Your task to perform on an android device: search for starred emails in the gmail app Image 0: 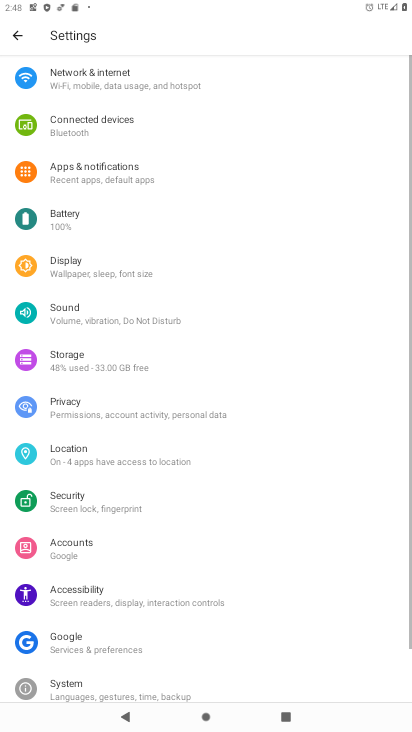
Step 0: press home button
Your task to perform on an android device: search for starred emails in the gmail app Image 1: 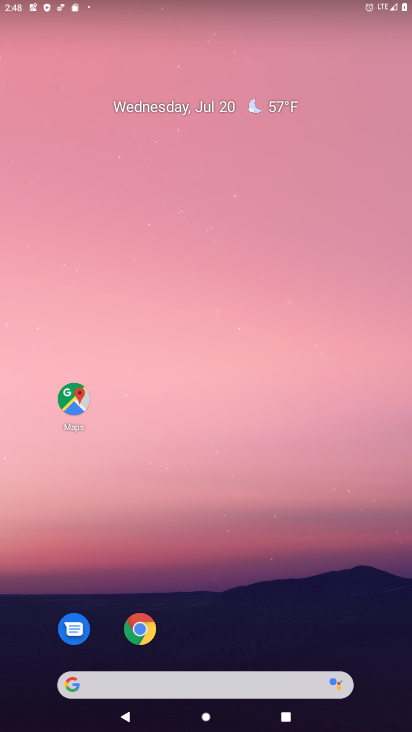
Step 1: drag from (384, 682) to (342, 238)
Your task to perform on an android device: search for starred emails in the gmail app Image 2: 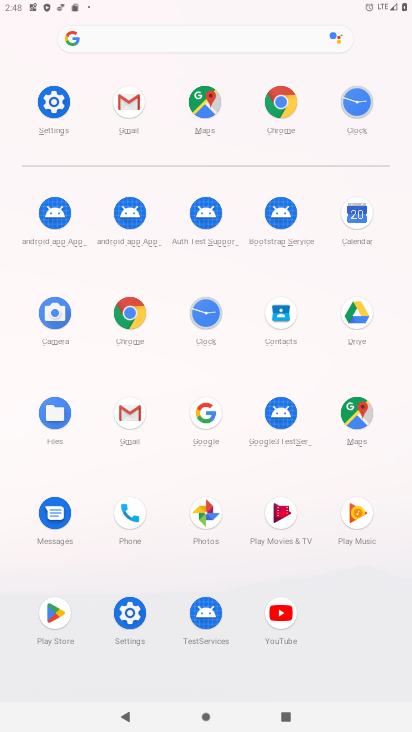
Step 2: click (129, 412)
Your task to perform on an android device: search for starred emails in the gmail app Image 3: 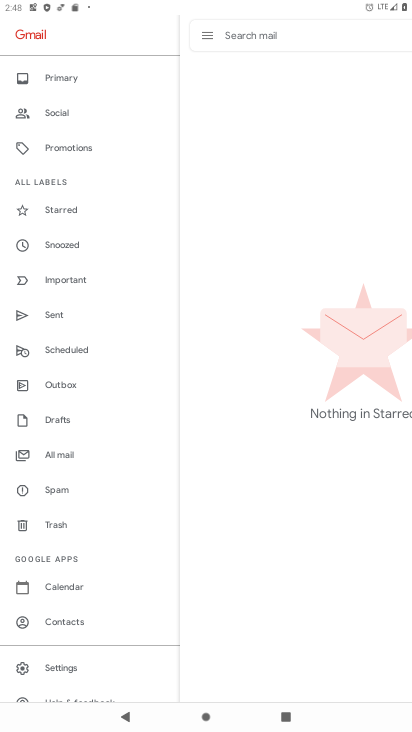
Step 3: click (58, 214)
Your task to perform on an android device: search for starred emails in the gmail app Image 4: 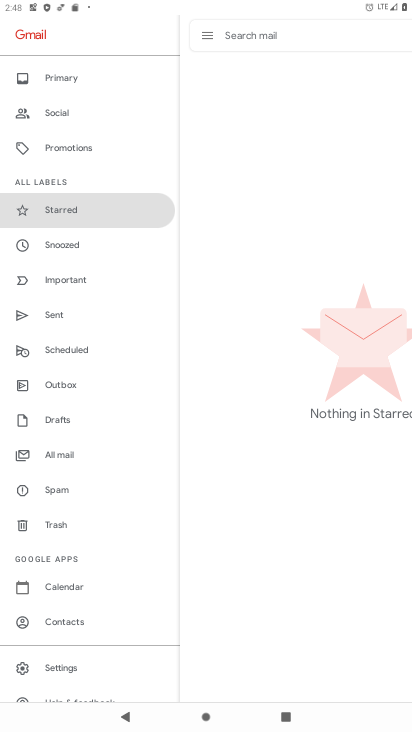
Step 4: task complete